Your task to perform on an android device: turn off location history Image 0: 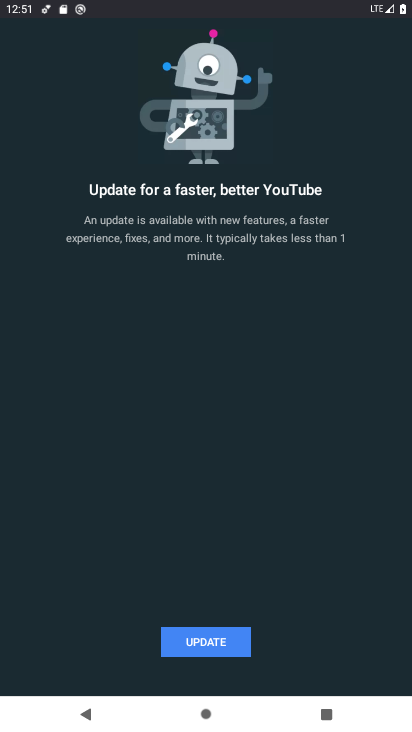
Step 0: press home button
Your task to perform on an android device: turn off location history Image 1: 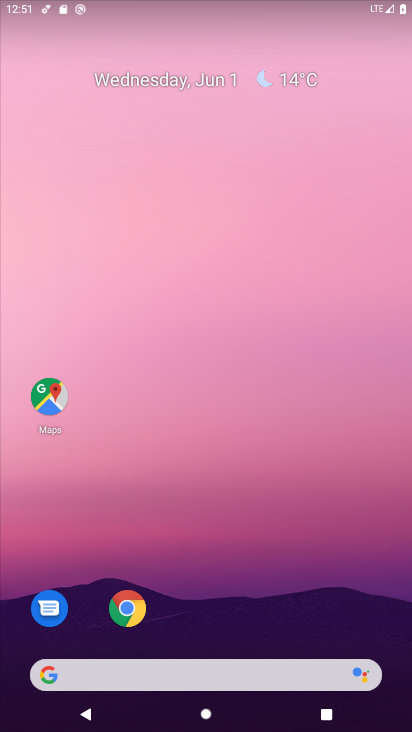
Step 1: drag from (226, 632) to (247, 7)
Your task to perform on an android device: turn off location history Image 2: 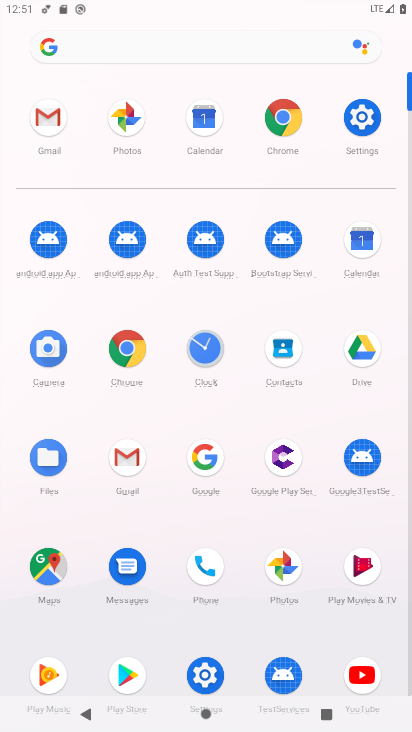
Step 2: click (364, 135)
Your task to perform on an android device: turn off location history Image 3: 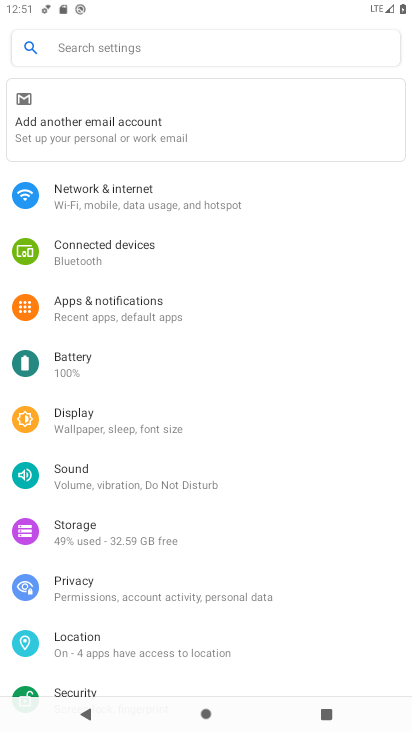
Step 3: drag from (166, 603) to (166, 448)
Your task to perform on an android device: turn off location history Image 4: 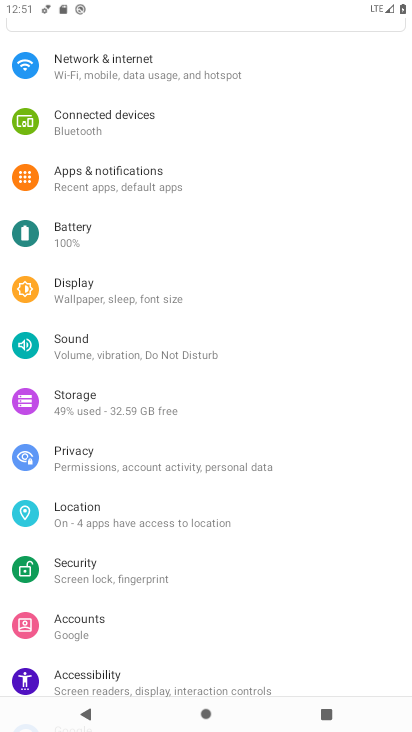
Step 4: click (146, 514)
Your task to perform on an android device: turn off location history Image 5: 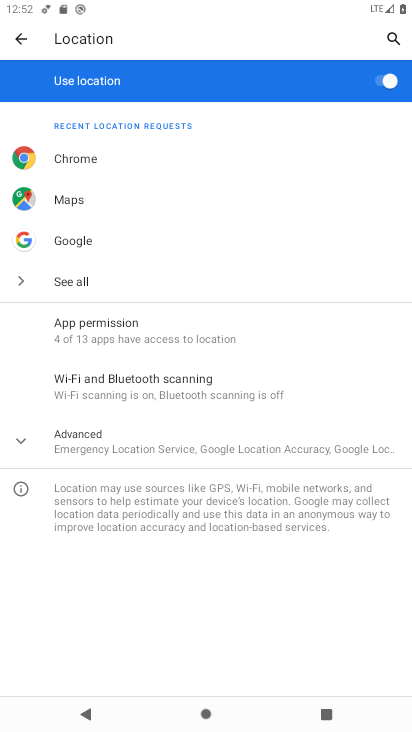
Step 5: click (165, 442)
Your task to perform on an android device: turn off location history Image 6: 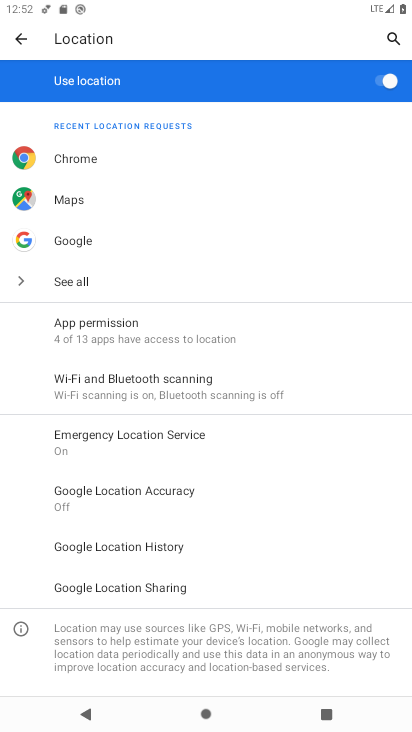
Step 6: click (177, 548)
Your task to perform on an android device: turn off location history Image 7: 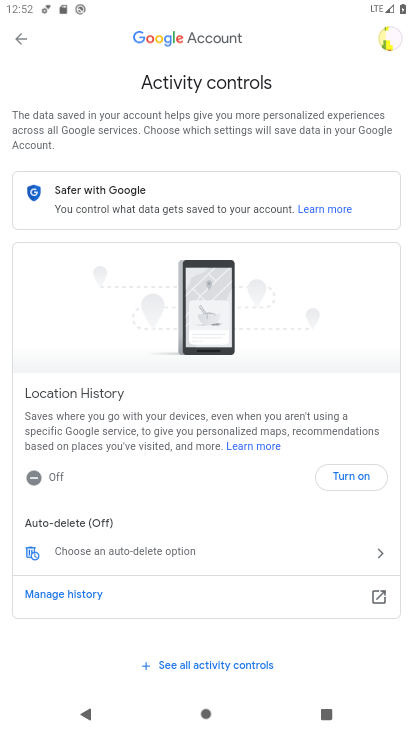
Step 7: task complete